Your task to perform on an android device: Open ESPN.com Image 0: 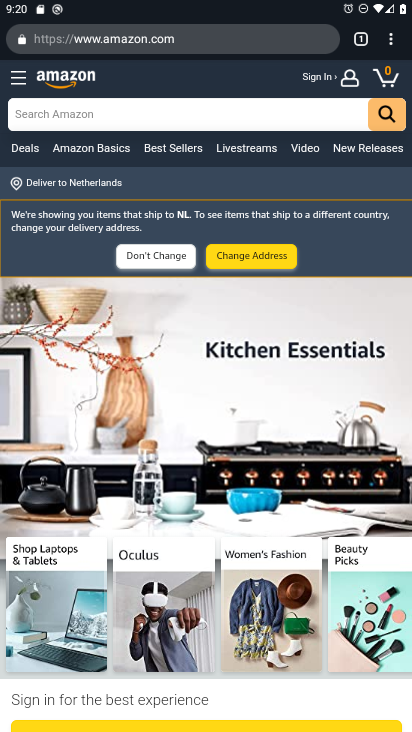
Step 0: press home button
Your task to perform on an android device: Open ESPN.com Image 1: 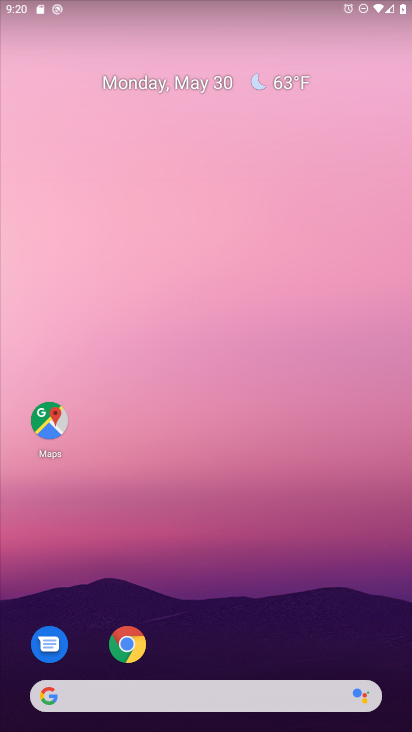
Step 1: drag from (229, 623) to (267, 117)
Your task to perform on an android device: Open ESPN.com Image 2: 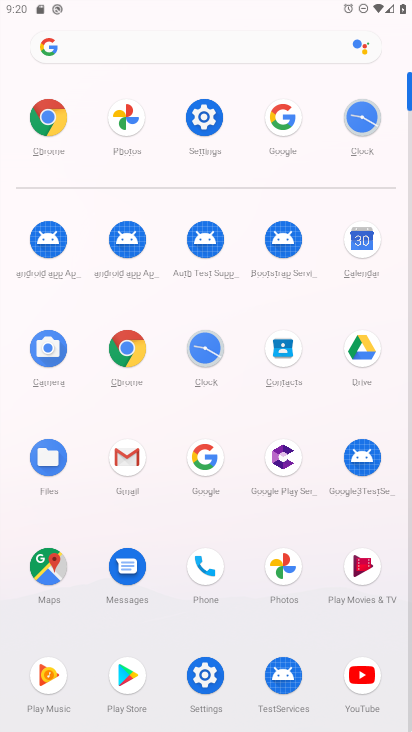
Step 2: click (292, 119)
Your task to perform on an android device: Open ESPN.com Image 3: 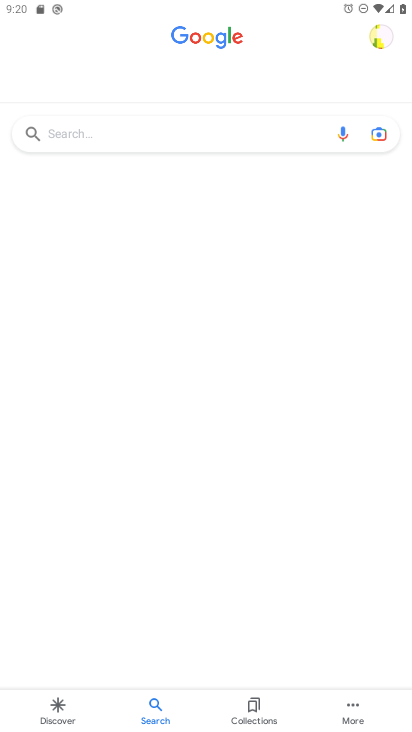
Step 3: click (142, 135)
Your task to perform on an android device: Open ESPN.com Image 4: 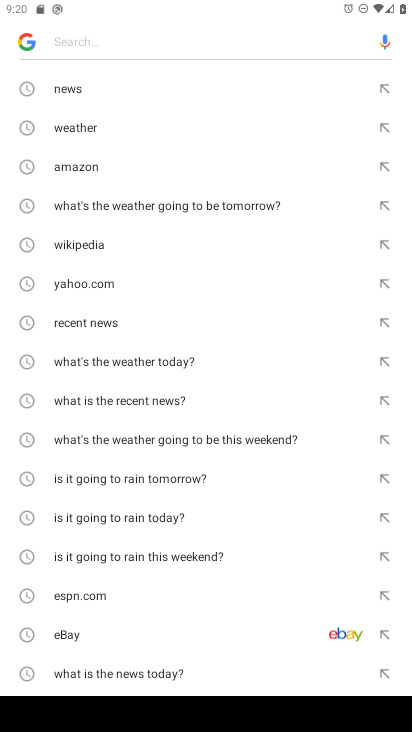
Step 4: drag from (166, 565) to (170, 212)
Your task to perform on an android device: Open ESPN.com Image 5: 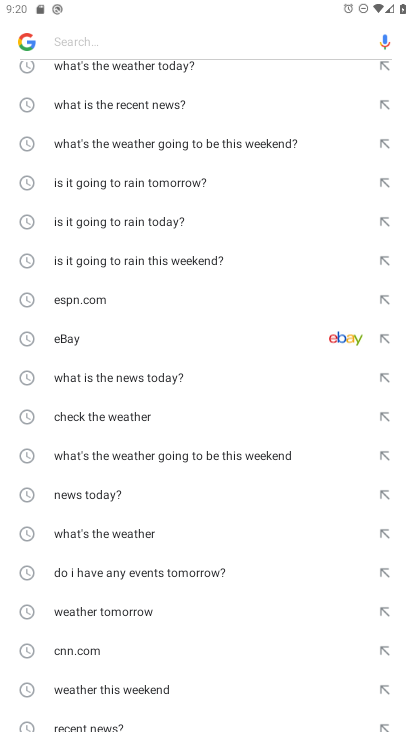
Step 5: drag from (188, 657) to (179, 479)
Your task to perform on an android device: Open ESPN.com Image 6: 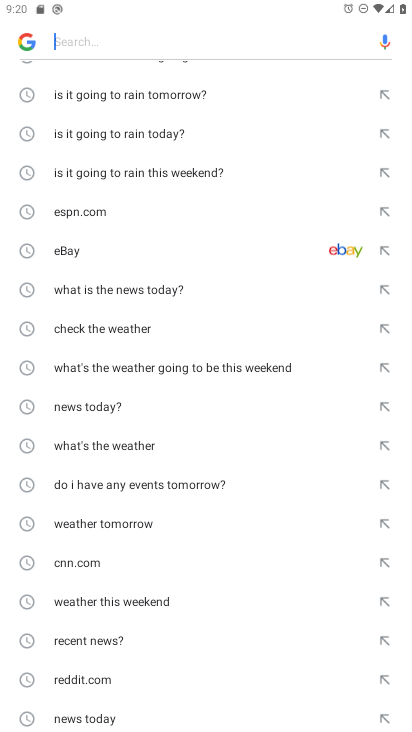
Step 6: click (97, 208)
Your task to perform on an android device: Open ESPN.com Image 7: 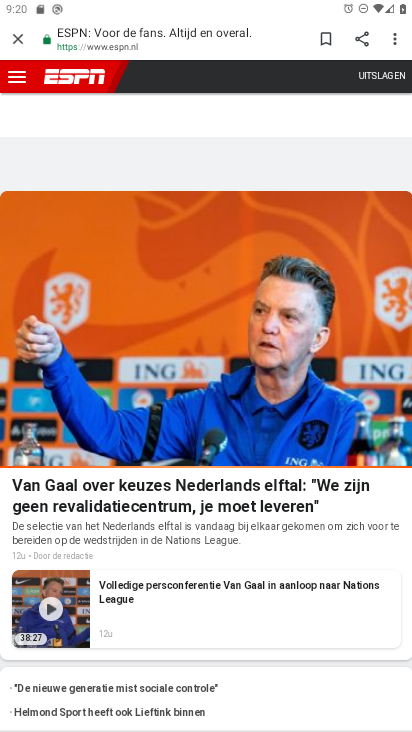
Step 7: task complete